Your task to perform on an android device: turn on airplane mode Image 0: 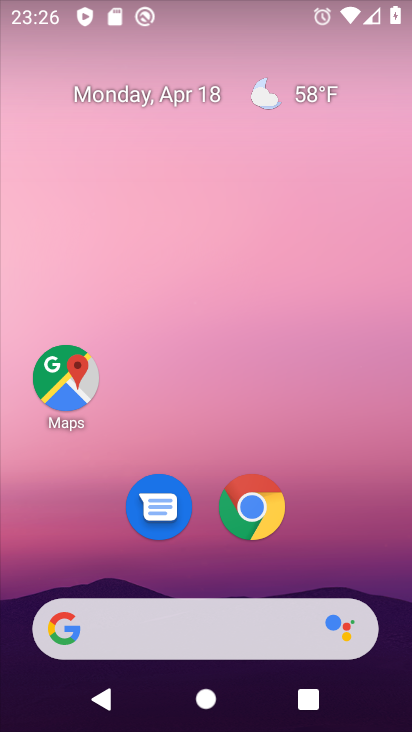
Step 0: drag from (275, 13) to (240, 595)
Your task to perform on an android device: turn on airplane mode Image 1: 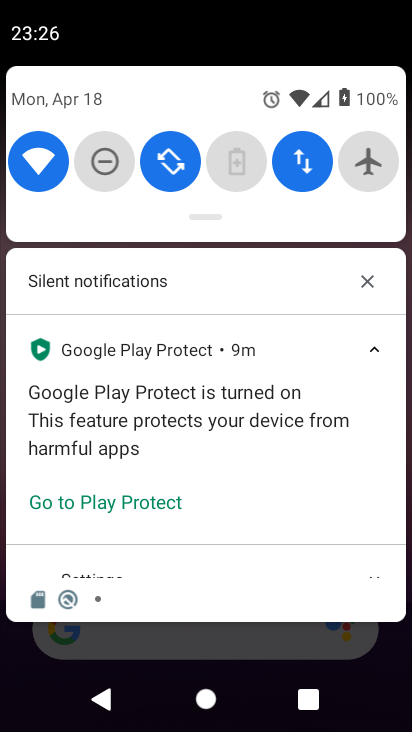
Step 1: click (361, 170)
Your task to perform on an android device: turn on airplane mode Image 2: 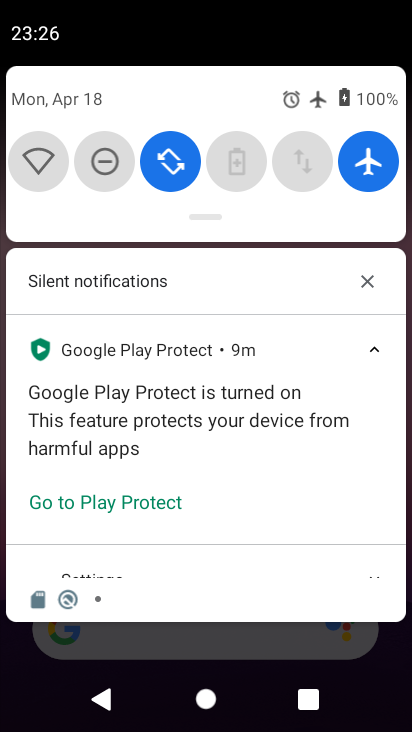
Step 2: task complete